Your task to perform on an android device: search for starred emails in the gmail app Image 0: 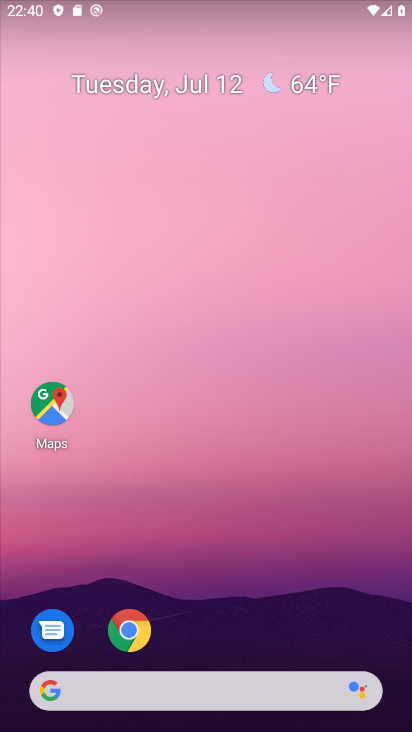
Step 0: drag from (355, 616) to (351, 147)
Your task to perform on an android device: search for starred emails in the gmail app Image 1: 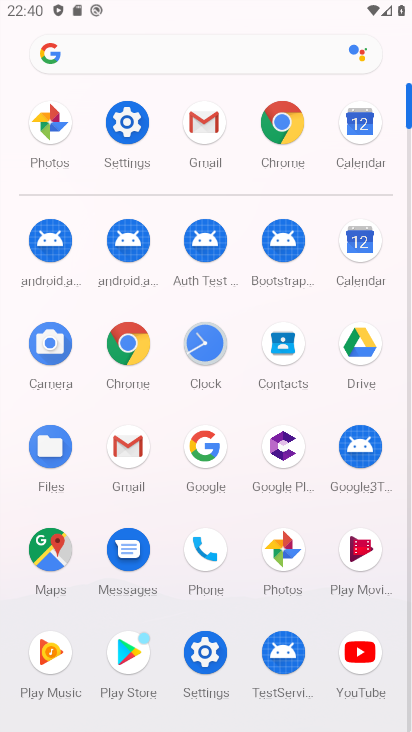
Step 1: click (142, 450)
Your task to perform on an android device: search for starred emails in the gmail app Image 2: 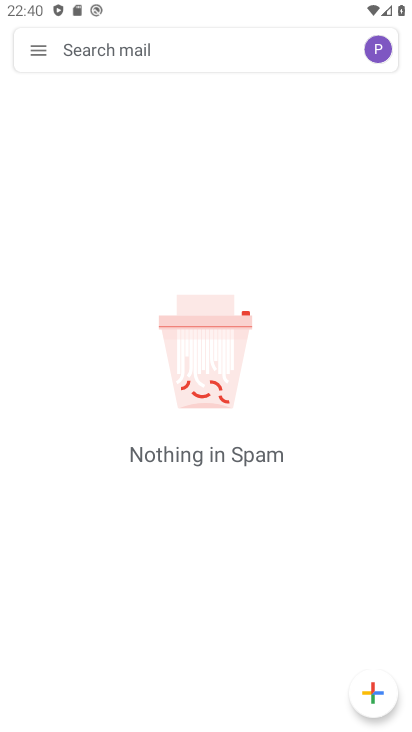
Step 2: click (142, 450)
Your task to perform on an android device: search for starred emails in the gmail app Image 3: 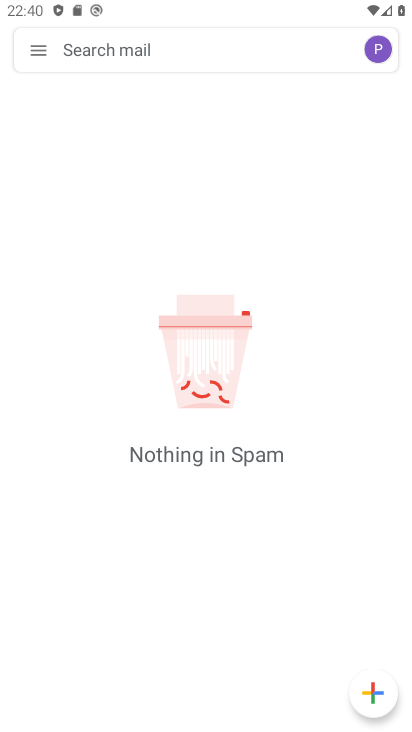
Step 3: click (37, 54)
Your task to perform on an android device: search for starred emails in the gmail app Image 4: 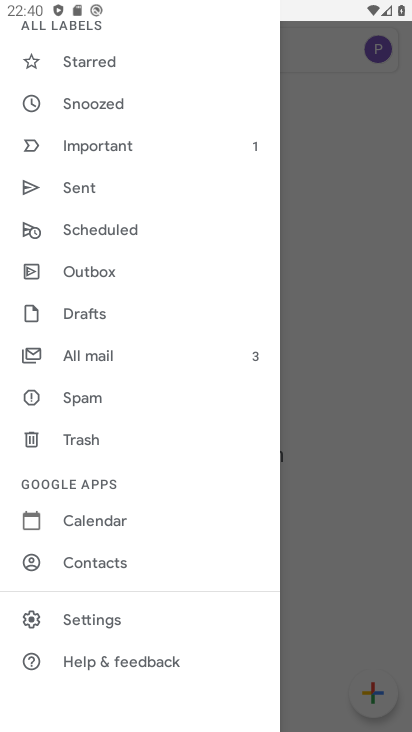
Step 4: click (92, 53)
Your task to perform on an android device: search for starred emails in the gmail app Image 5: 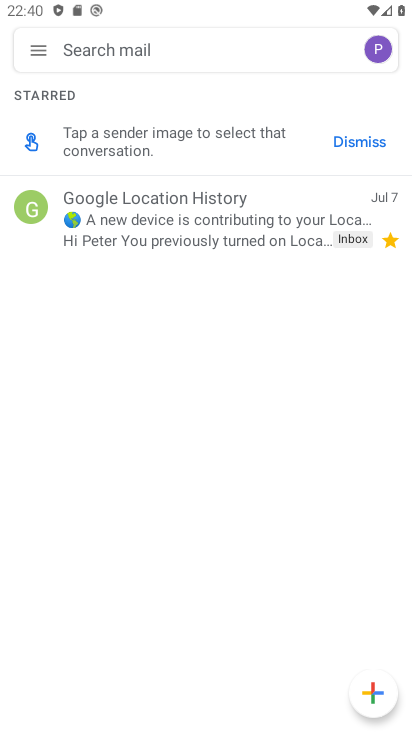
Step 5: task complete